Your task to perform on an android device: Turn on the flashlight Image 0: 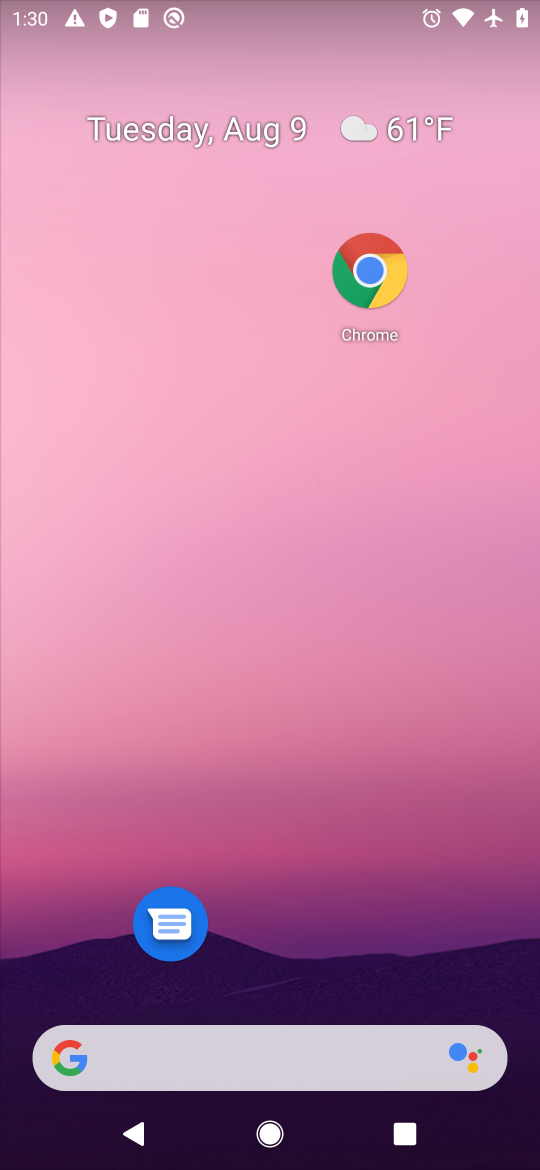
Step 0: drag from (340, 1003) to (141, 64)
Your task to perform on an android device: Turn on the flashlight Image 1: 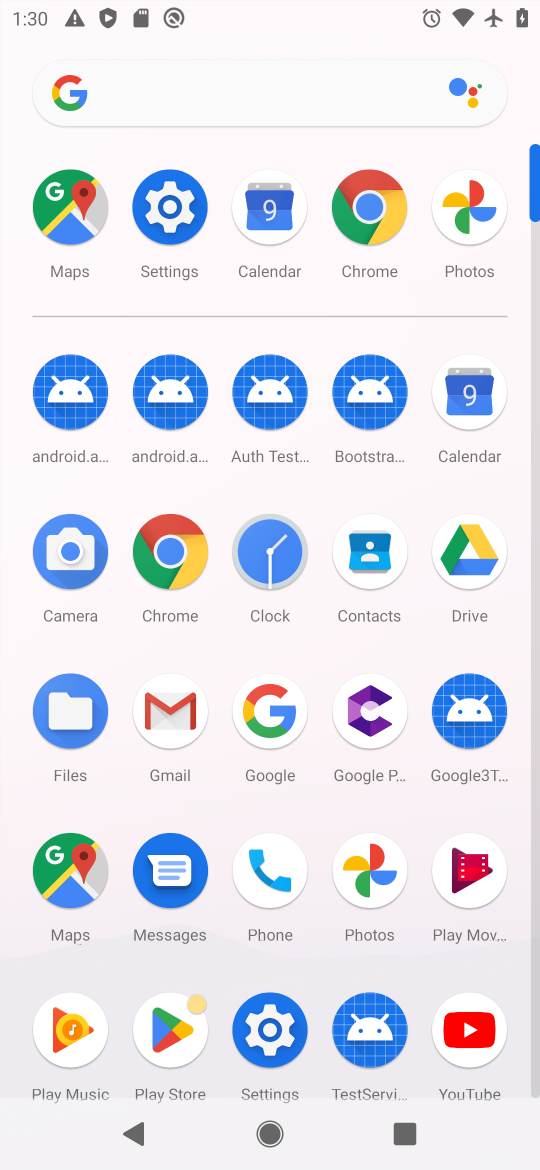
Step 1: click (186, 232)
Your task to perform on an android device: Turn on the flashlight Image 2: 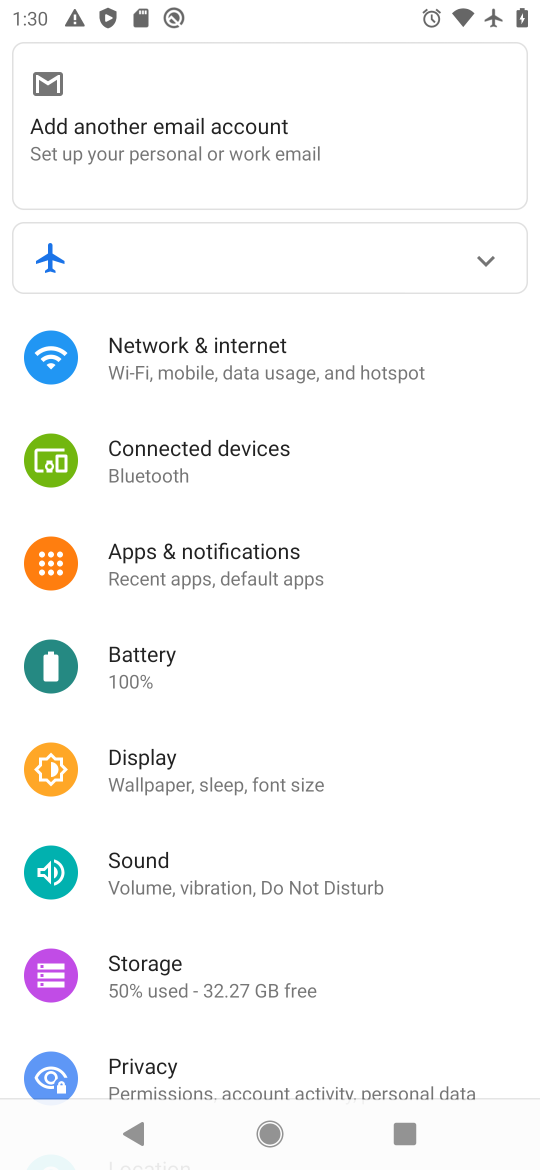
Step 2: task complete